Your task to perform on an android device: refresh tabs in the chrome app Image 0: 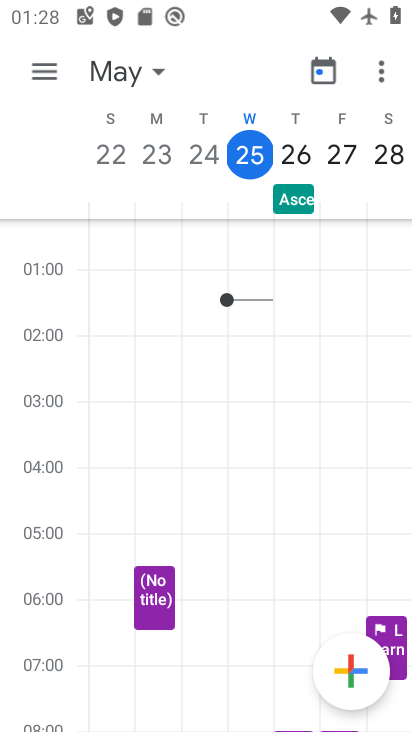
Step 0: press home button
Your task to perform on an android device: refresh tabs in the chrome app Image 1: 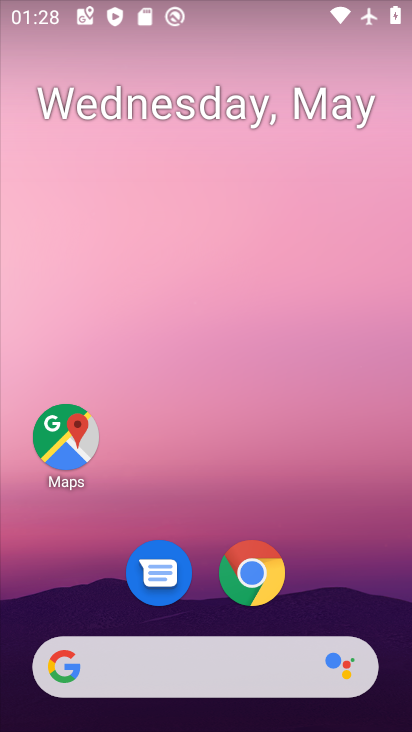
Step 1: click (261, 551)
Your task to perform on an android device: refresh tabs in the chrome app Image 2: 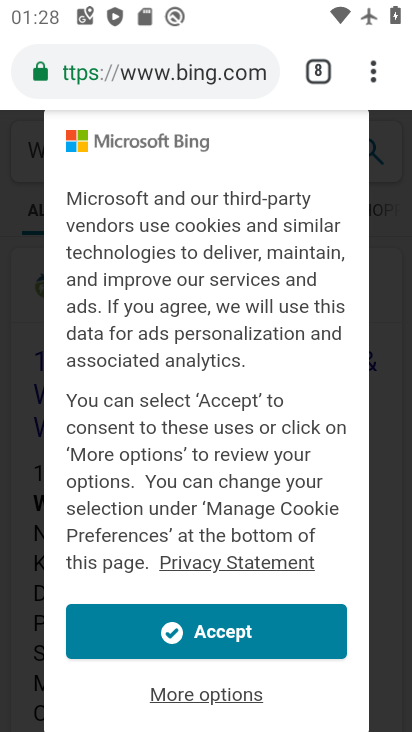
Step 2: click (373, 83)
Your task to perform on an android device: refresh tabs in the chrome app Image 3: 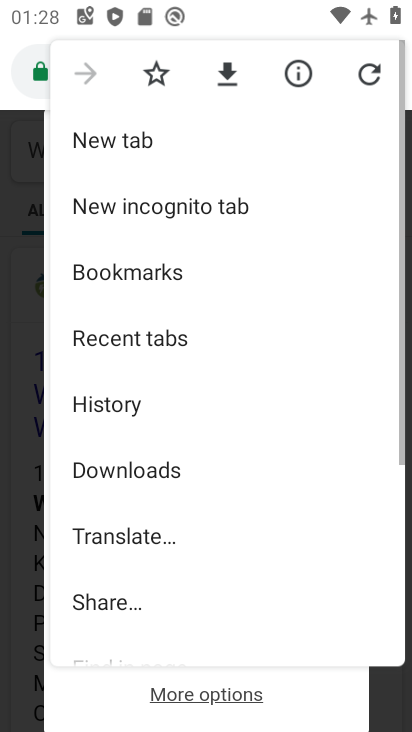
Step 3: click (373, 62)
Your task to perform on an android device: refresh tabs in the chrome app Image 4: 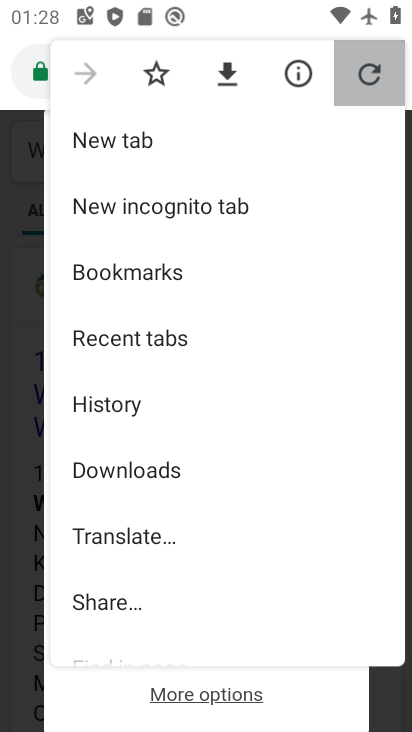
Step 4: click (373, 61)
Your task to perform on an android device: refresh tabs in the chrome app Image 5: 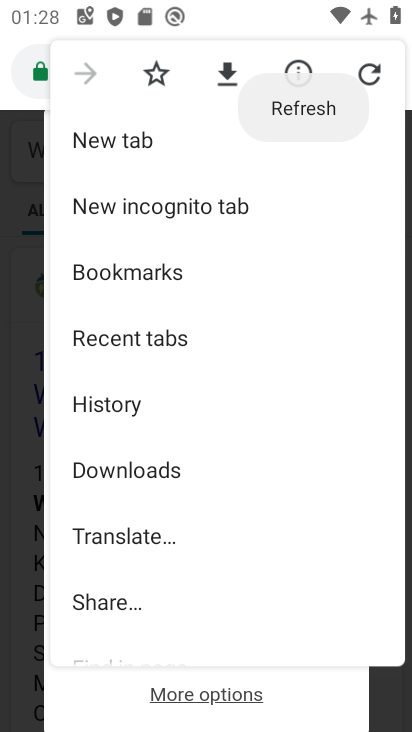
Step 5: task complete